Your task to perform on an android device: Open Google Chrome and click the shortcut for Amazon.com Image 0: 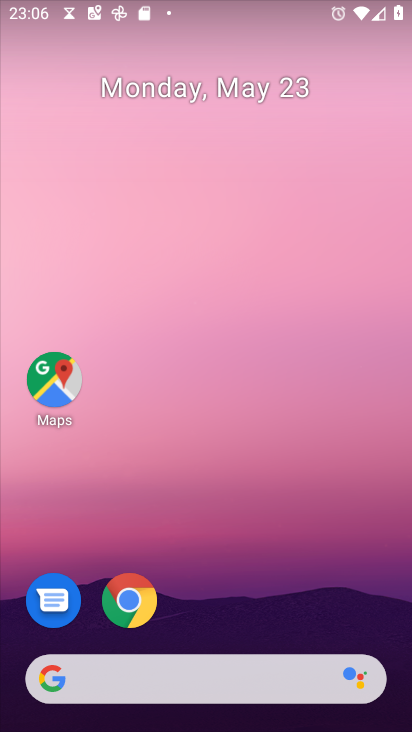
Step 0: click (135, 599)
Your task to perform on an android device: Open Google Chrome and click the shortcut for Amazon.com Image 1: 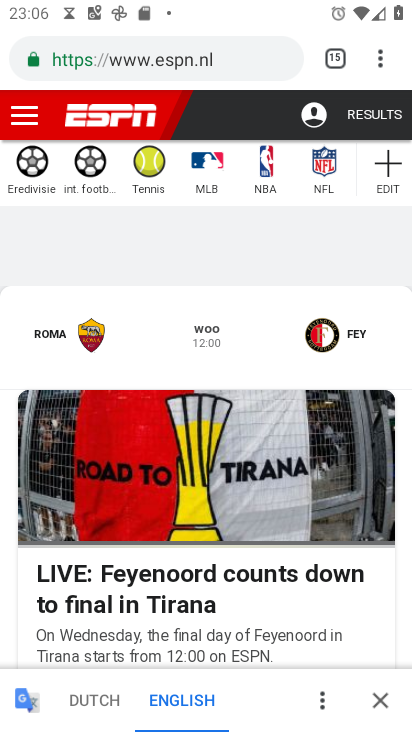
Step 1: click (381, 63)
Your task to perform on an android device: Open Google Chrome and click the shortcut for Amazon.com Image 2: 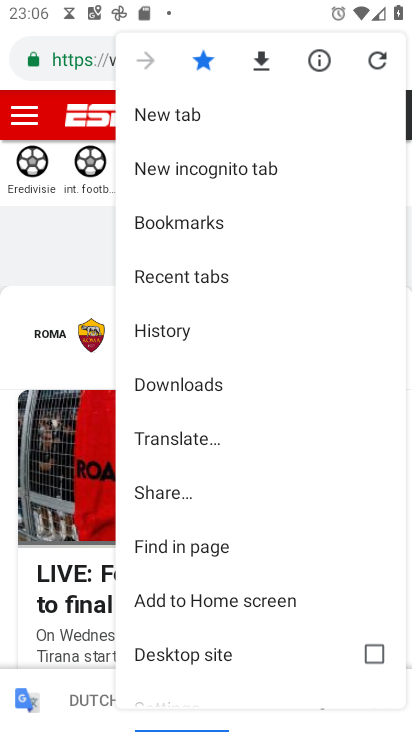
Step 2: click (168, 110)
Your task to perform on an android device: Open Google Chrome and click the shortcut for Amazon.com Image 3: 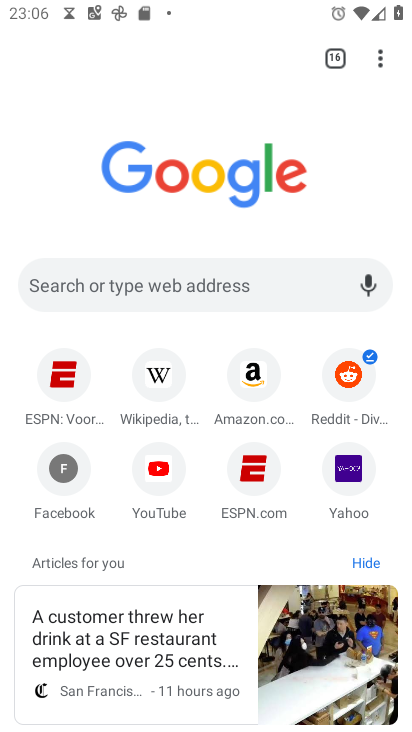
Step 3: click (252, 387)
Your task to perform on an android device: Open Google Chrome and click the shortcut for Amazon.com Image 4: 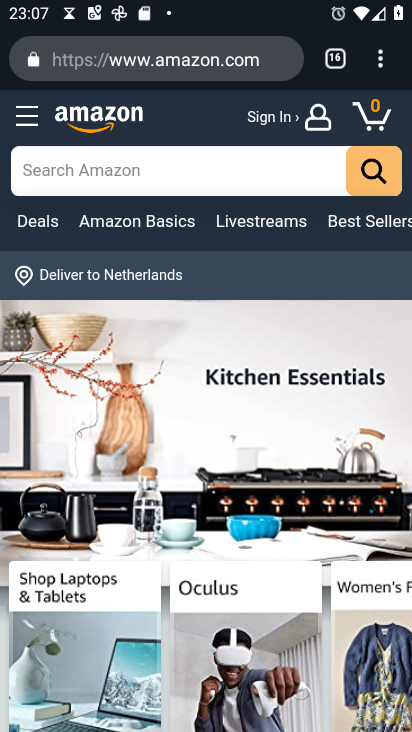
Step 4: task complete